Your task to perform on an android device: See recent photos Image 0: 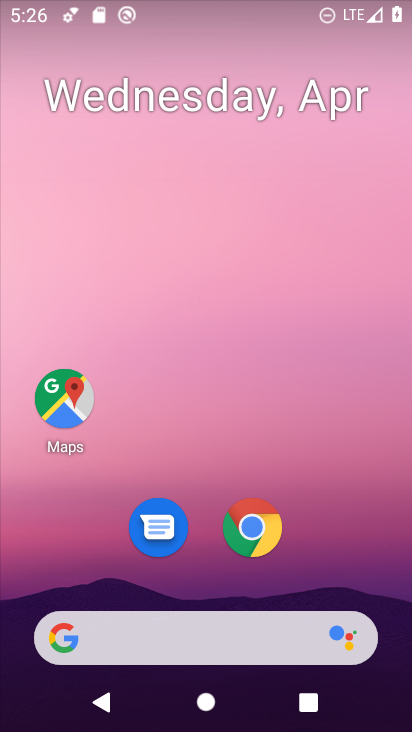
Step 0: drag from (386, 444) to (383, 5)
Your task to perform on an android device: See recent photos Image 1: 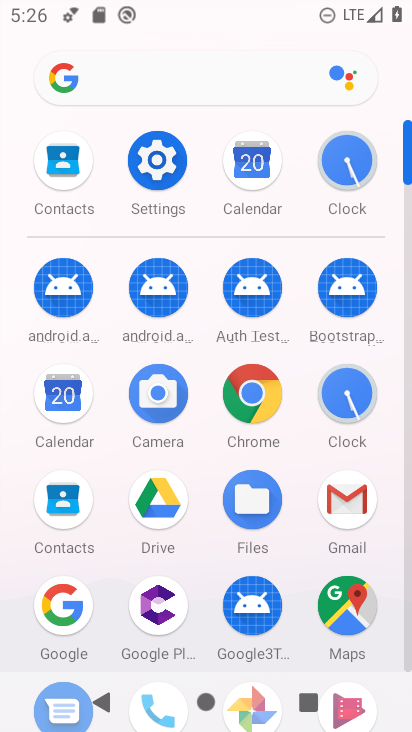
Step 1: drag from (409, 514) to (408, 476)
Your task to perform on an android device: See recent photos Image 2: 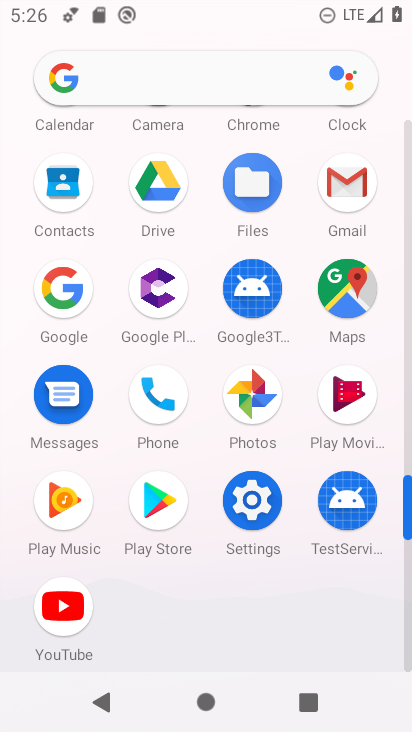
Step 2: click (252, 405)
Your task to perform on an android device: See recent photos Image 3: 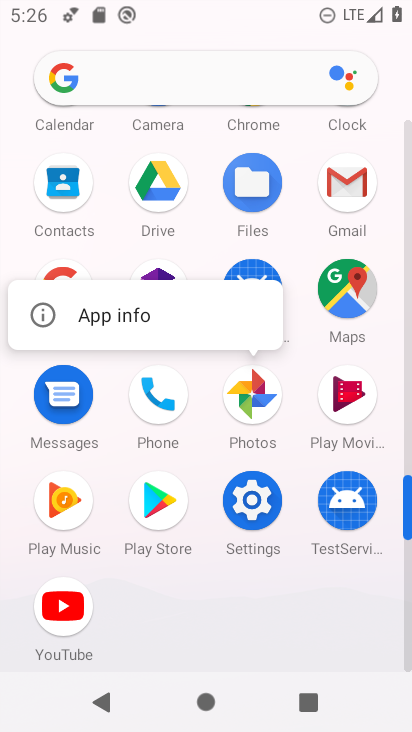
Step 3: click (251, 389)
Your task to perform on an android device: See recent photos Image 4: 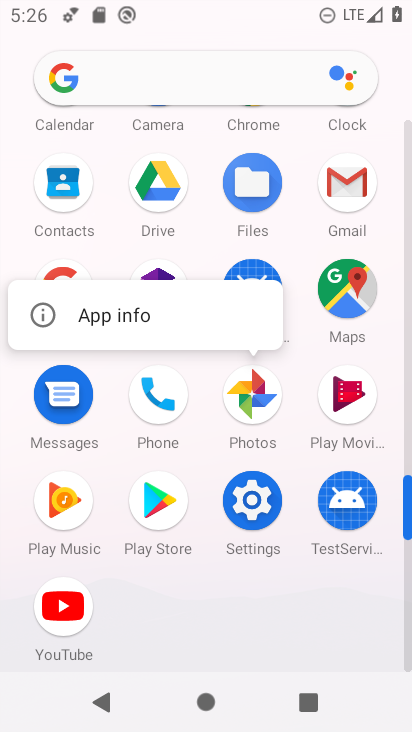
Step 4: click (251, 389)
Your task to perform on an android device: See recent photos Image 5: 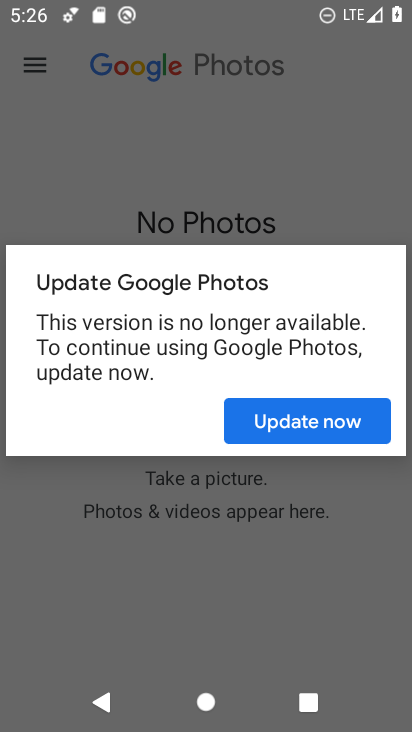
Step 5: click (266, 429)
Your task to perform on an android device: See recent photos Image 6: 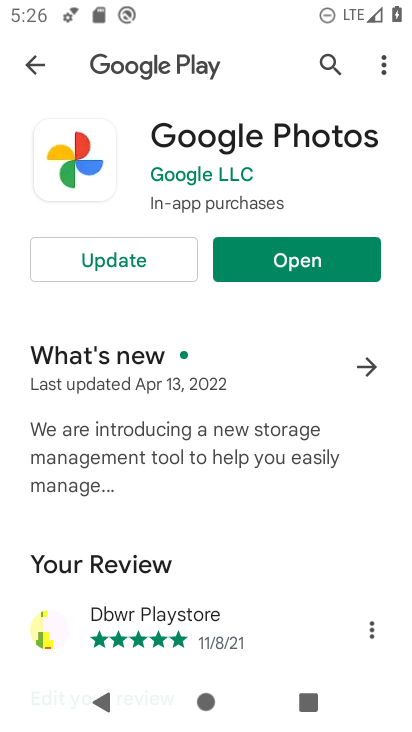
Step 6: click (259, 265)
Your task to perform on an android device: See recent photos Image 7: 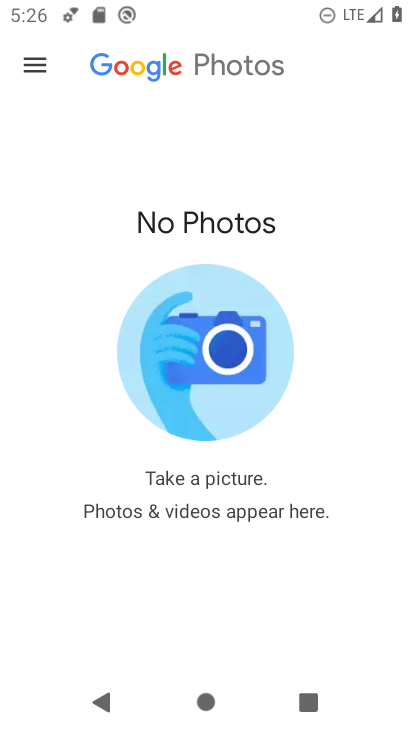
Step 7: click (46, 72)
Your task to perform on an android device: See recent photos Image 8: 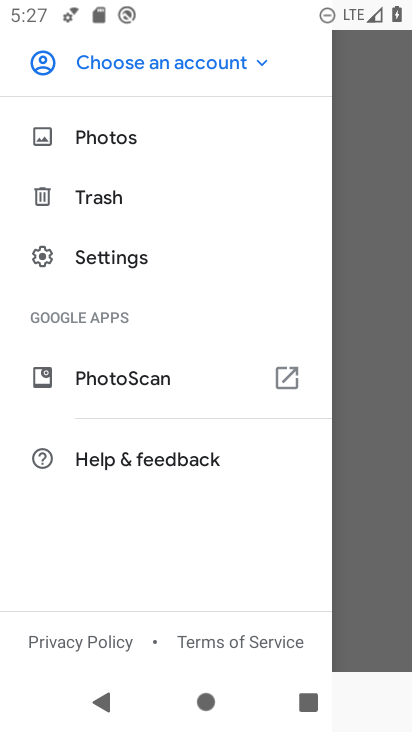
Step 8: drag from (153, 254) to (154, 405)
Your task to perform on an android device: See recent photos Image 9: 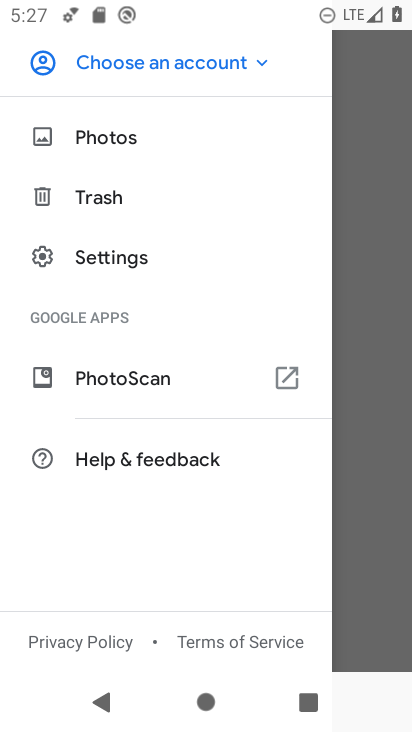
Step 9: click (363, 515)
Your task to perform on an android device: See recent photos Image 10: 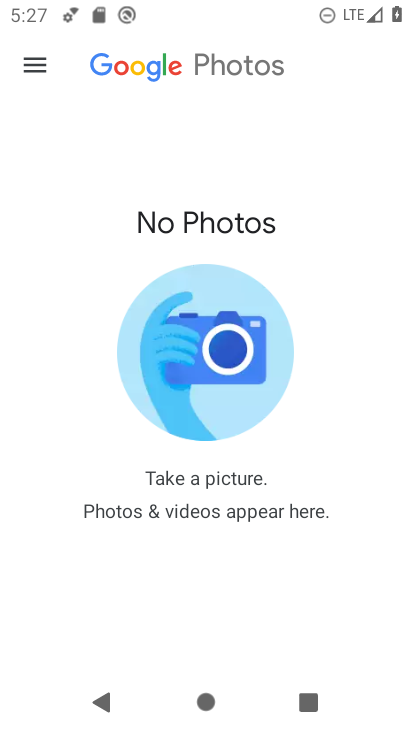
Step 10: task complete